Your task to perform on an android device: stop showing notifications on the lock screen Image 0: 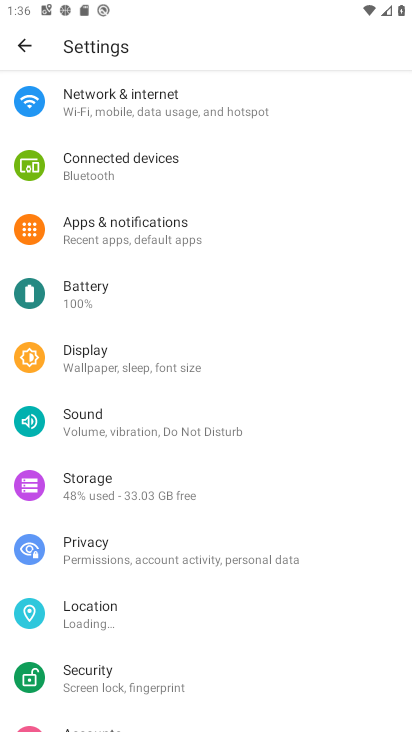
Step 0: press home button
Your task to perform on an android device: stop showing notifications on the lock screen Image 1: 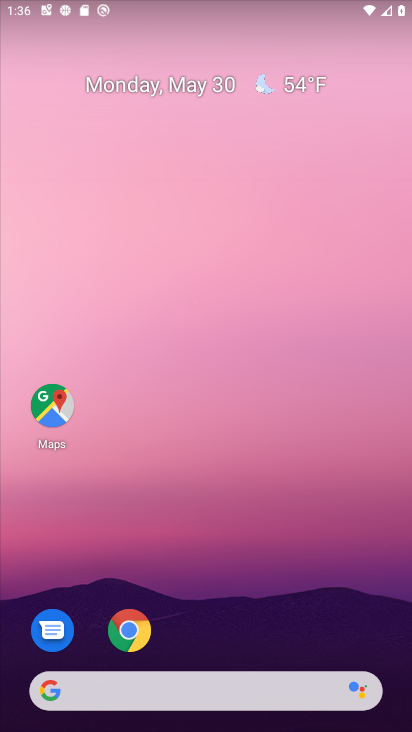
Step 1: drag from (141, 691) to (285, 279)
Your task to perform on an android device: stop showing notifications on the lock screen Image 2: 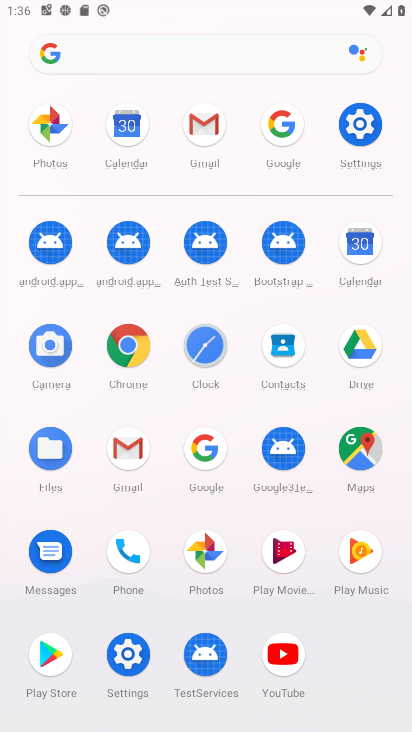
Step 2: click (368, 127)
Your task to perform on an android device: stop showing notifications on the lock screen Image 3: 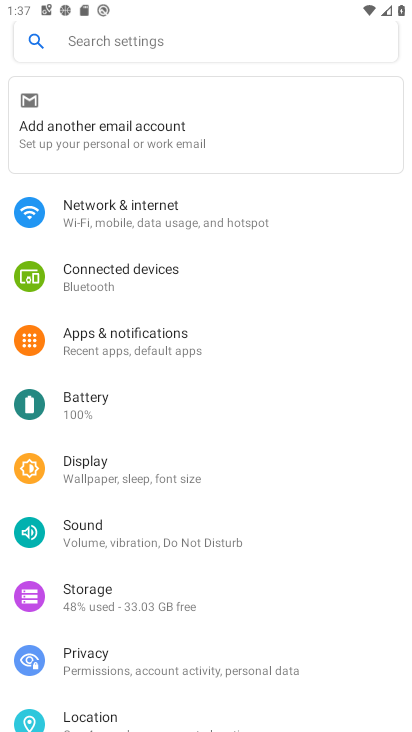
Step 3: click (159, 341)
Your task to perform on an android device: stop showing notifications on the lock screen Image 4: 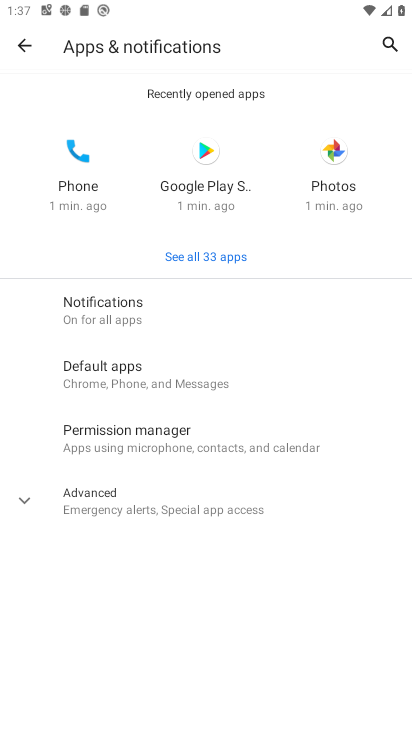
Step 4: click (117, 321)
Your task to perform on an android device: stop showing notifications on the lock screen Image 5: 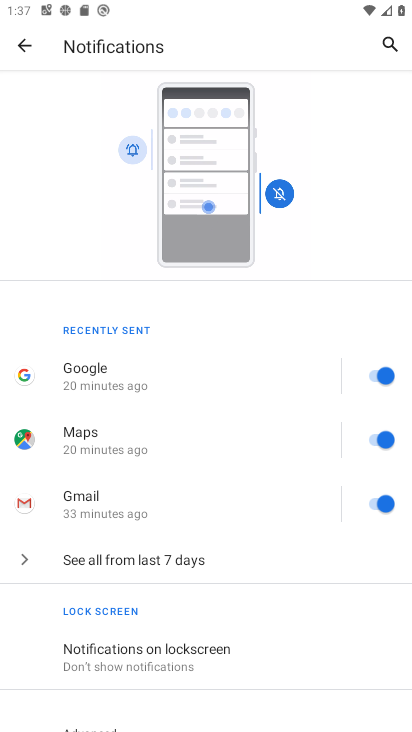
Step 5: drag from (210, 573) to (339, 278)
Your task to perform on an android device: stop showing notifications on the lock screen Image 6: 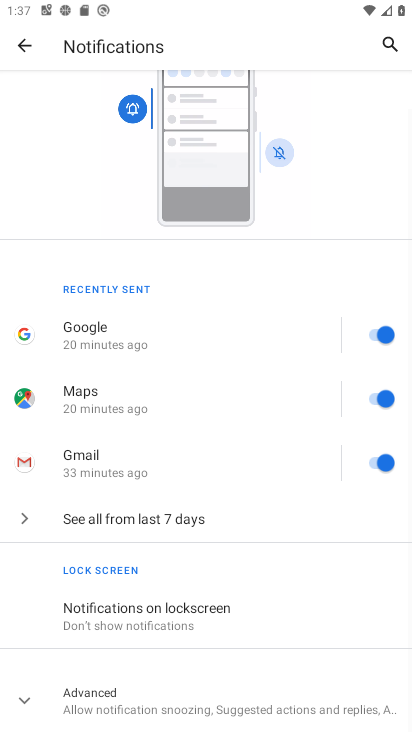
Step 6: click (185, 607)
Your task to perform on an android device: stop showing notifications on the lock screen Image 7: 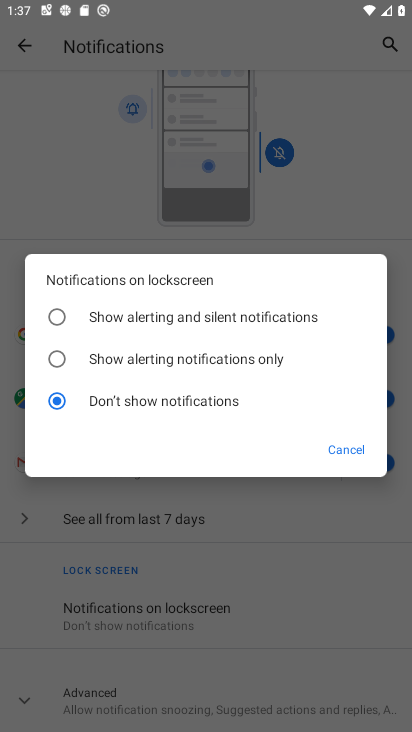
Step 7: task complete